Your task to perform on an android device: Go to privacy settings Image 0: 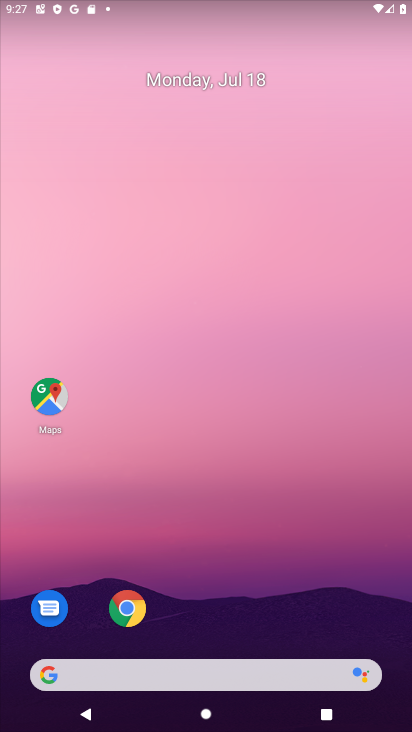
Step 0: click (181, 183)
Your task to perform on an android device: Go to privacy settings Image 1: 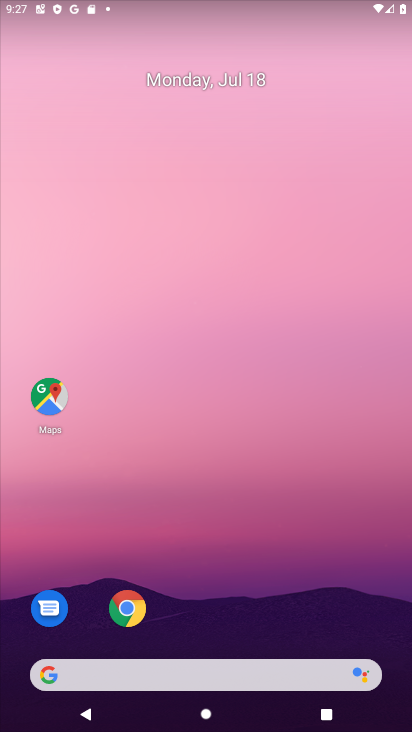
Step 1: drag from (164, 482) to (157, 325)
Your task to perform on an android device: Go to privacy settings Image 2: 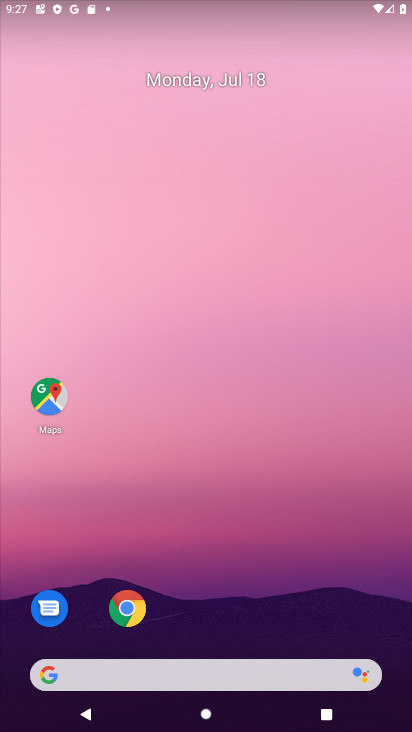
Step 2: click (185, 21)
Your task to perform on an android device: Go to privacy settings Image 3: 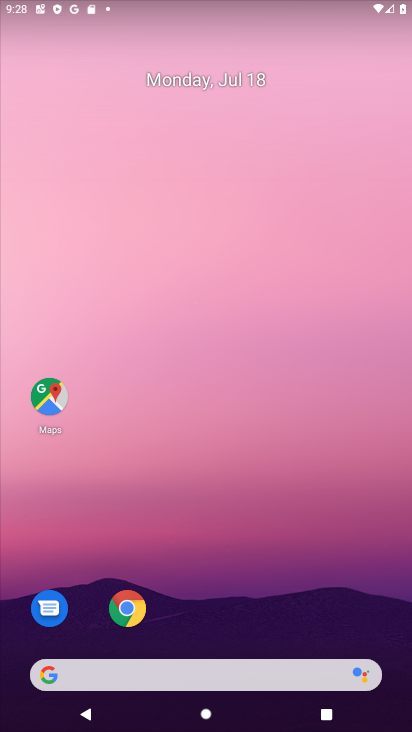
Step 3: drag from (188, 542) to (188, 70)
Your task to perform on an android device: Go to privacy settings Image 4: 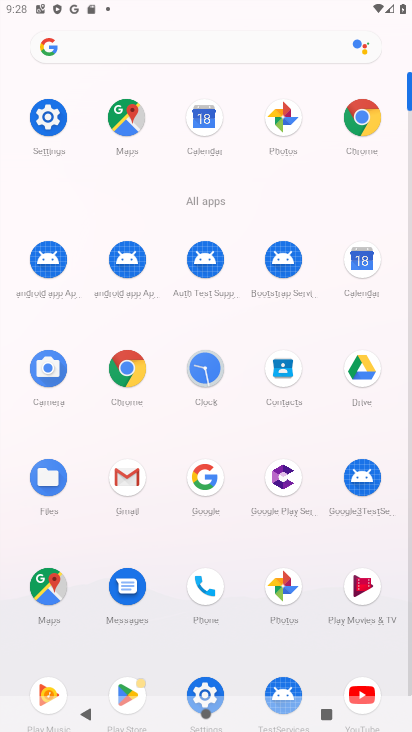
Step 4: click (50, 126)
Your task to perform on an android device: Go to privacy settings Image 5: 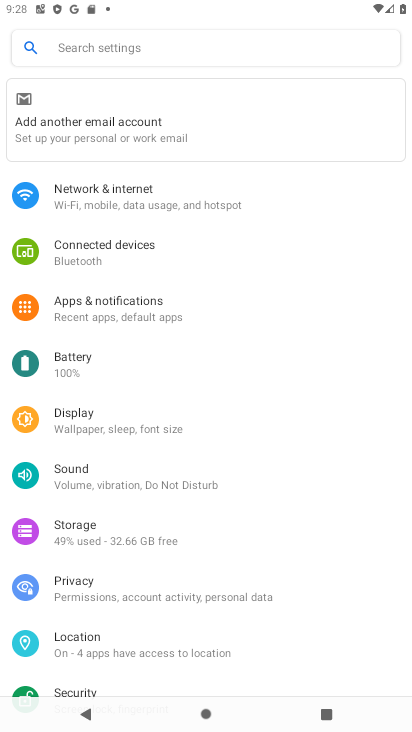
Step 5: click (95, 594)
Your task to perform on an android device: Go to privacy settings Image 6: 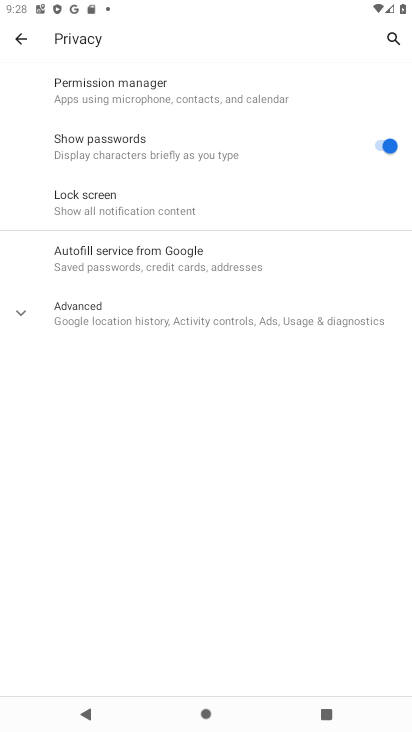
Step 6: task complete